Your task to perform on an android device: turn off smart reply in the gmail app Image 0: 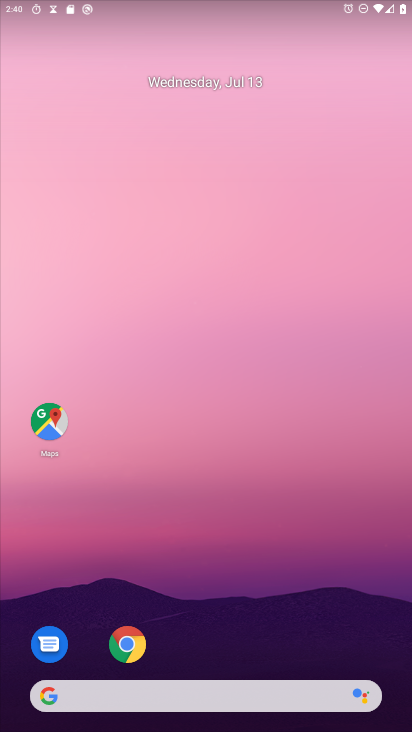
Step 0: press home button
Your task to perform on an android device: turn off smart reply in the gmail app Image 1: 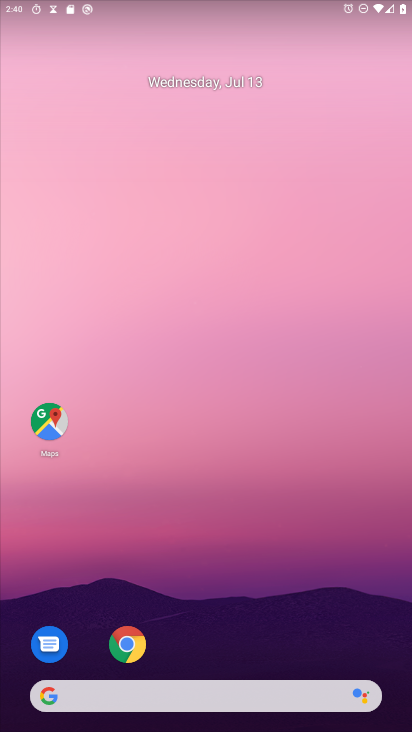
Step 1: drag from (283, 534) to (289, 67)
Your task to perform on an android device: turn off smart reply in the gmail app Image 2: 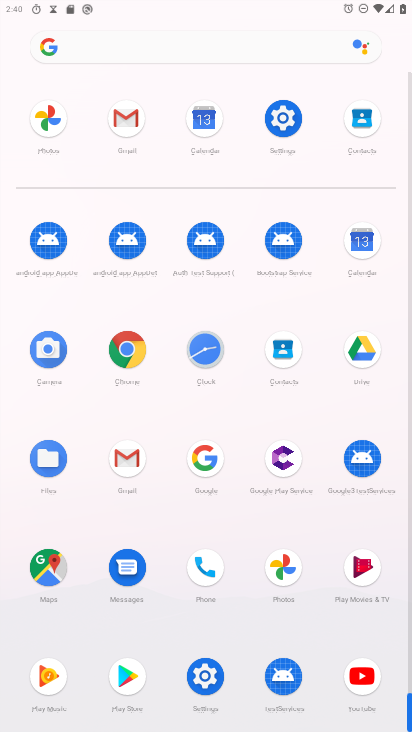
Step 2: click (123, 113)
Your task to perform on an android device: turn off smart reply in the gmail app Image 3: 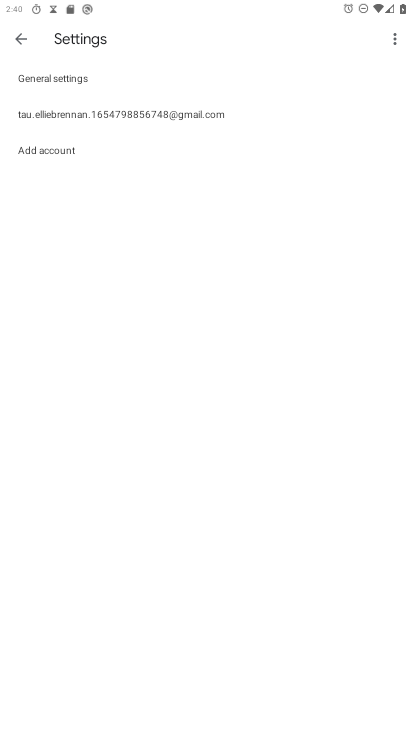
Step 3: click (34, 116)
Your task to perform on an android device: turn off smart reply in the gmail app Image 4: 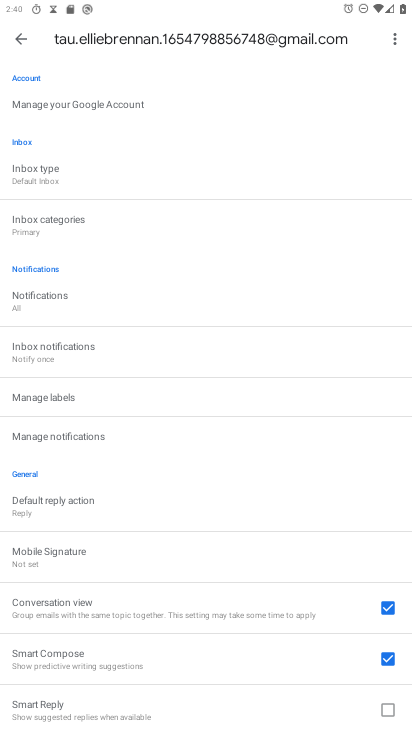
Step 4: task complete